Your task to perform on an android device: Open Maps and search for coffee Image 0: 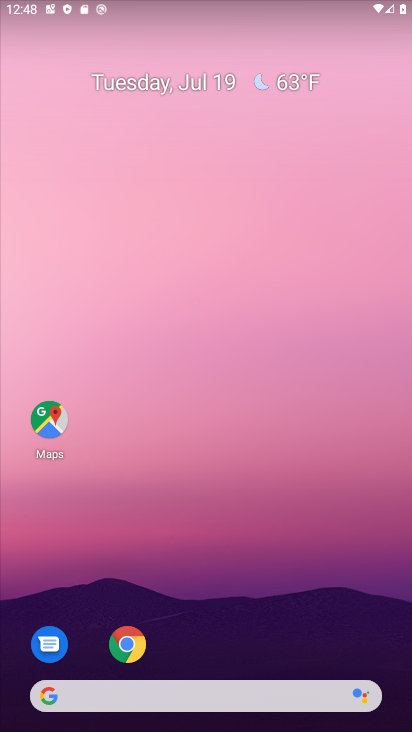
Step 0: drag from (237, 724) to (232, 119)
Your task to perform on an android device: Open Maps and search for coffee Image 1: 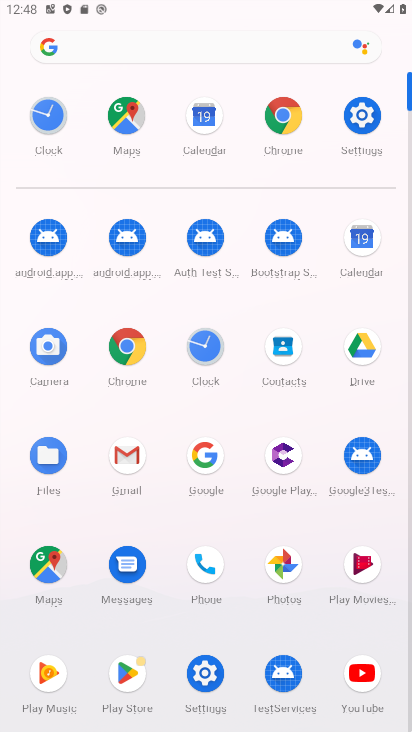
Step 1: click (44, 564)
Your task to perform on an android device: Open Maps and search for coffee Image 2: 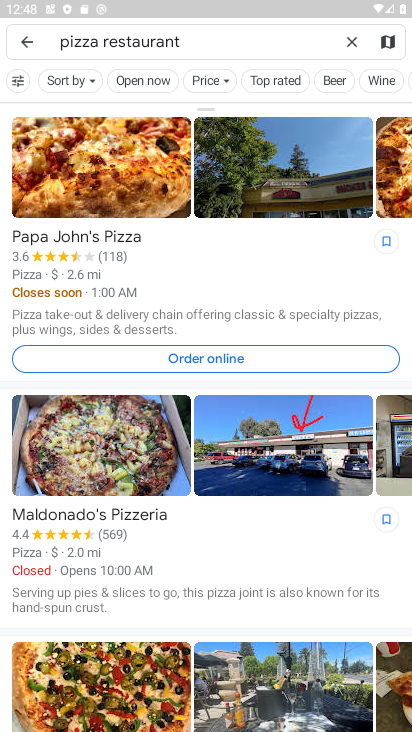
Step 2: click (349, 35)
Your task to perform on an android device: Open Maps and search for coffee Image 3: 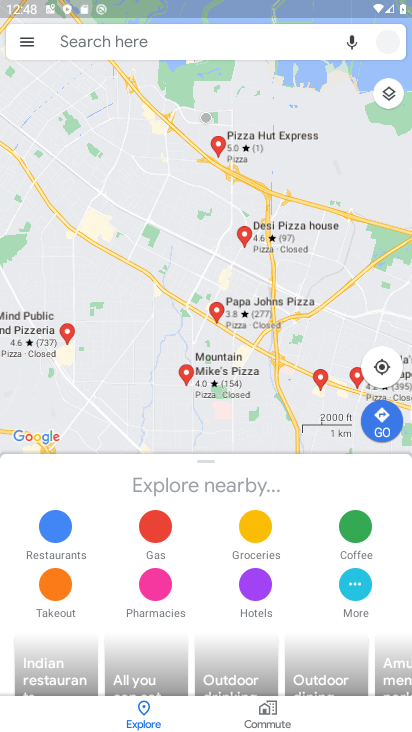
Step 3: click (152, 38)
Your task to perform on an android device: Open Maps and search for coffee Image 4: 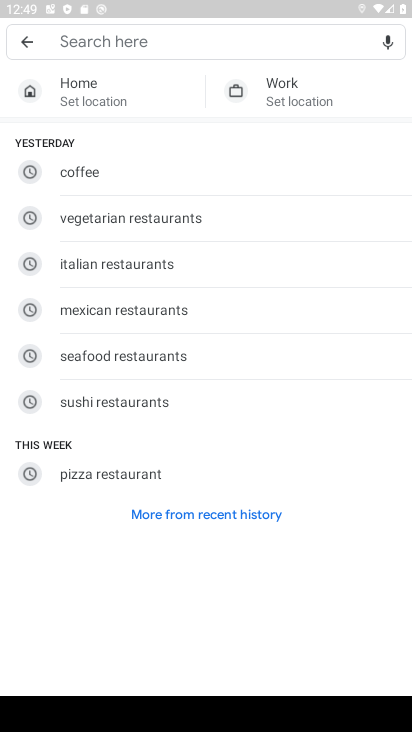
Step 4: type "coffee"
Your task to perform on an android device: Open Maps and search for coffee Image 5: 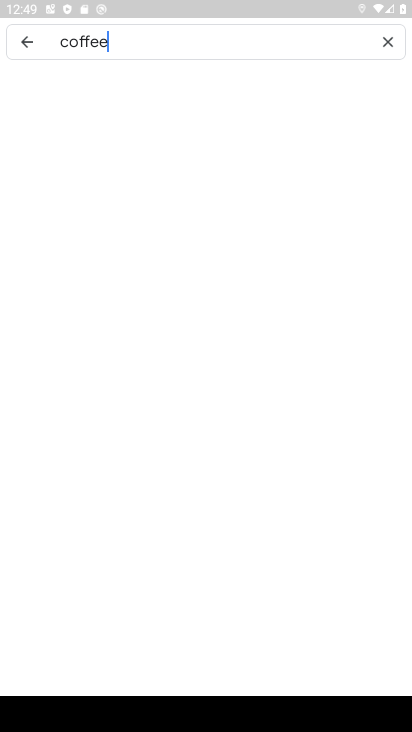
Step 5: type ""
Your task to perform on an android device: Open Maps and search for coffee Image 6: 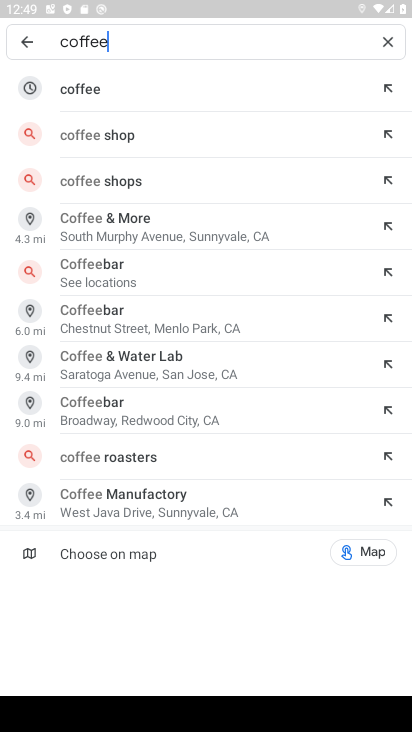
Step 6: click (74, 79)
Your task to perform on an android device: Open Maps and search for coffee Image 7: 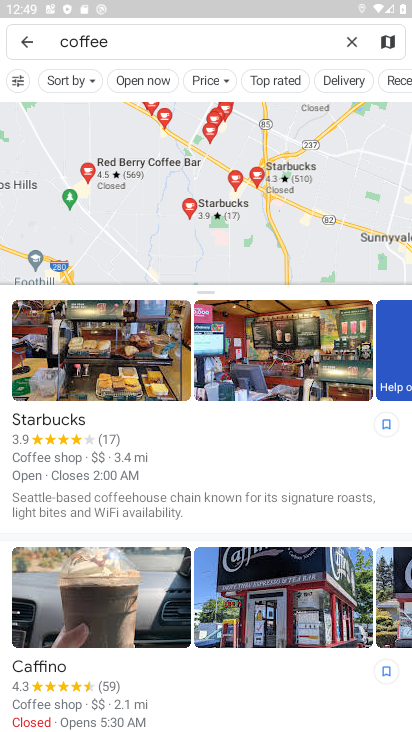
Step 7: task complete